Your task to perform on an android device: turn off improve location accuracy Image 0: 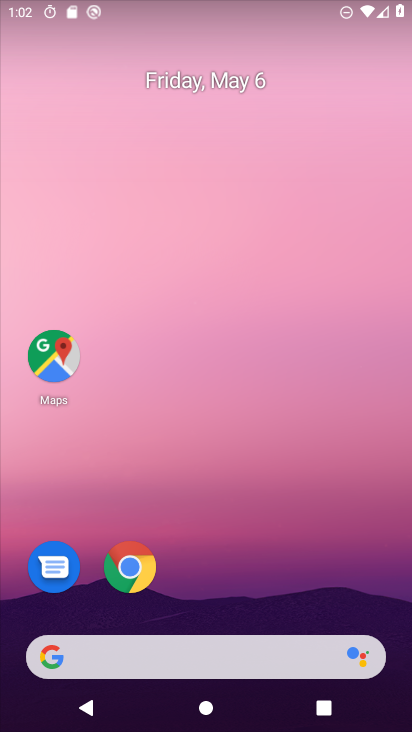
Step 0: drag from (234, 683) to (211, 320)
Your task to perform on an android device: turn off improve location accuracy Image 1: 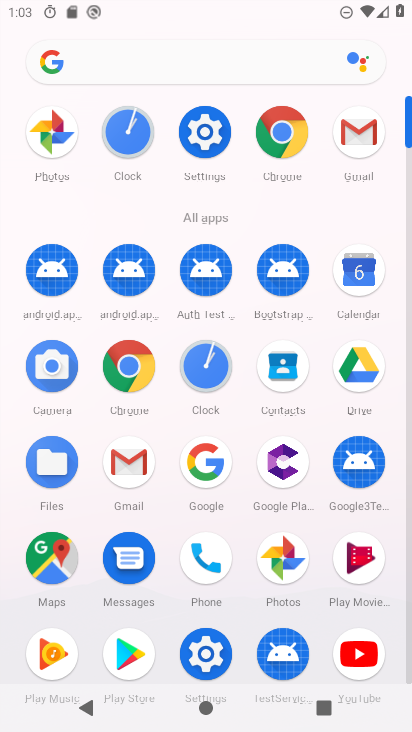
Step 1: click (206, 649)
Your task to perform on an android device: turn off improve location accuracy Image 2: 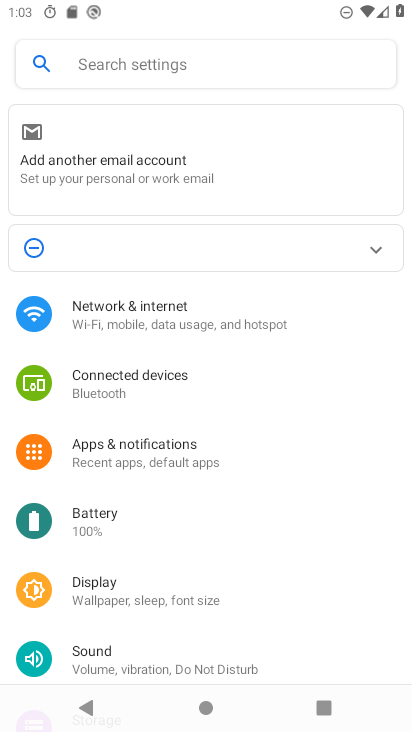
Step 2: click (128, 70)
Your task to perform on an android device: turn off improve location accuracy Image 3: 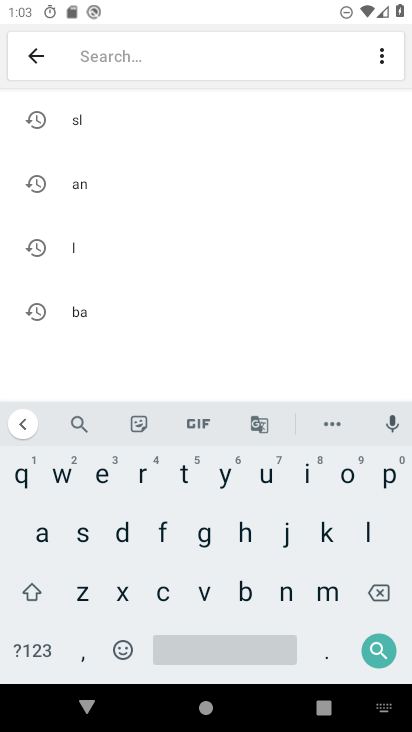
Step 3: click (360, 530)
Your task to perform on an android device: turn off improve location accuracy Image 4: 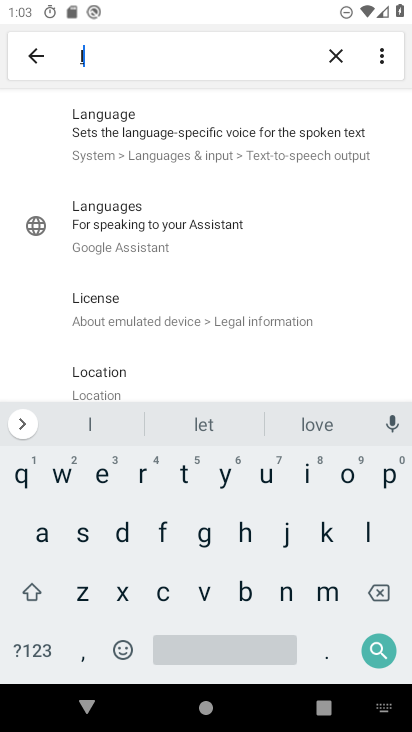
Step 4: click (144, 379)
Your task to perform on an android device: turn off improve location accuracy Image 5: 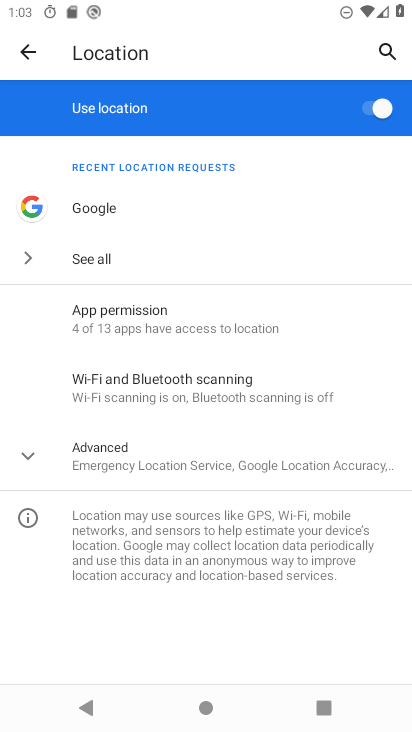
Step 5: click (88, 462)
Your task to perform on an android device: turn off improve location accuracy Image 6: 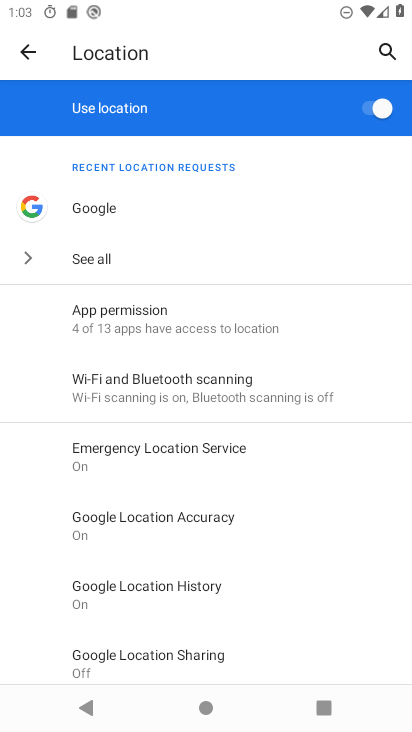
Step 6: click (193, 527)
Your task to perform on an android device: turn off improve location accuracy Image 7: 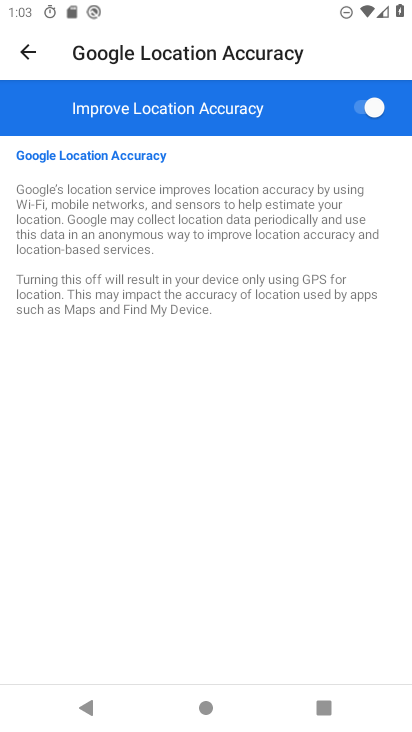
Step 7: click (366, 117)
Your task to perform on an android device: turn off improve location accuracy Image 8: 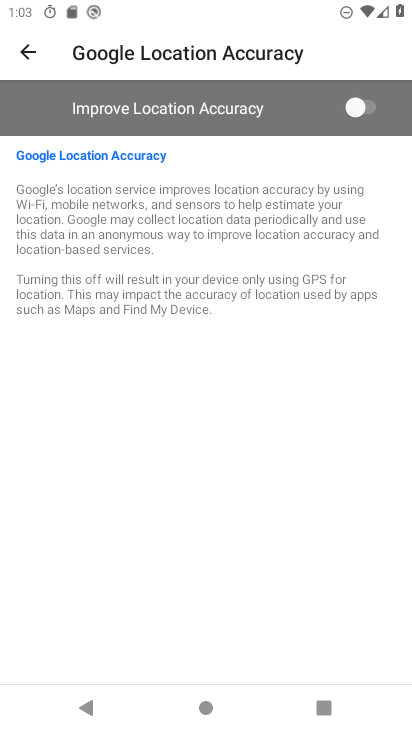
Step 8: task complete